Your task to perform on an android device: add a label to a message in the gmail app Image 0: 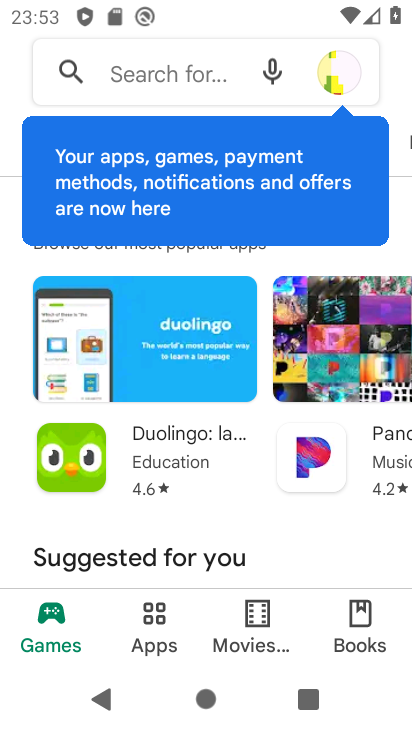
Step 0: press home button
Your task to perform on an android device: add a label to a message in the gmail app Image 1: 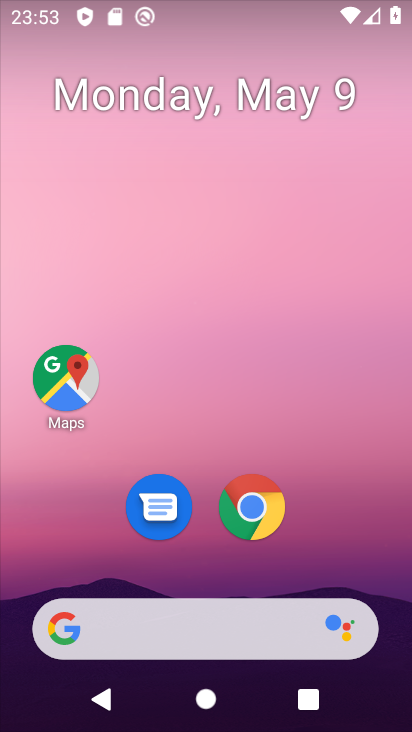
Step 1: drag from (325, 549) to (294, 131)
Your task to perform on an android device: add a label to a message in the gmail app Image 2: 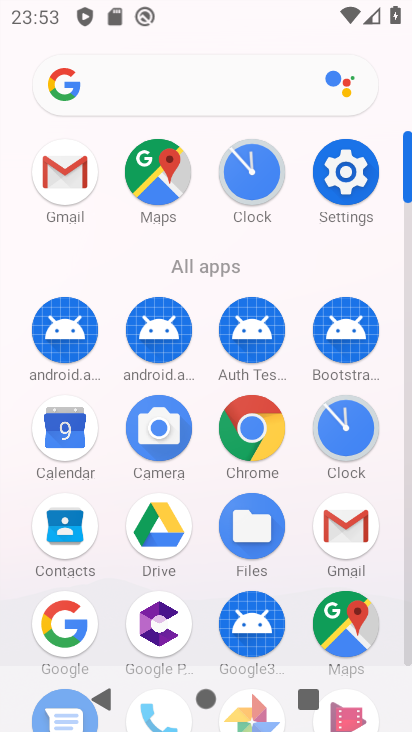
Step 2: click (339, 515)
Your task to perform on an android device: add a label to a message in the gmail app Image 3: 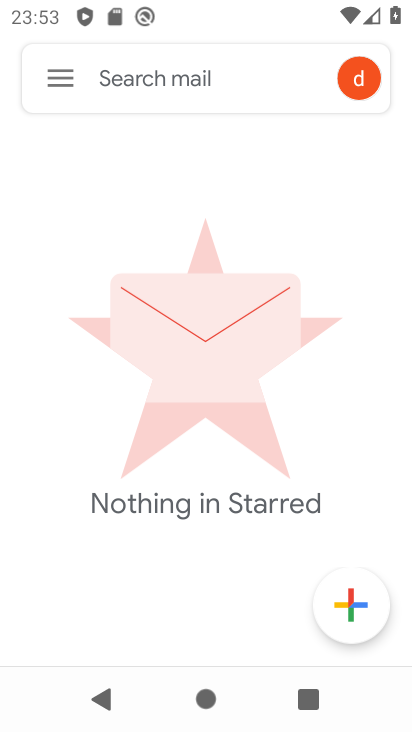
Step 3: click (70, 91)
Your task to perform on an android device: add a label to a message in the gmail app Image 4: 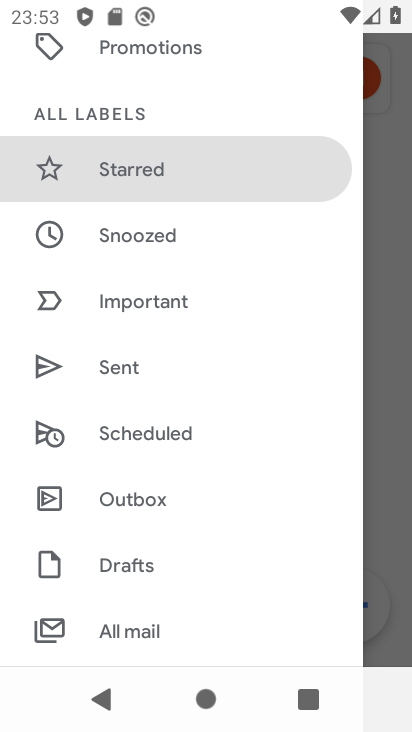
Step 4: click (130, 620)
Your task to perform on an android device: add a label to a message in the gmail app Image 5: 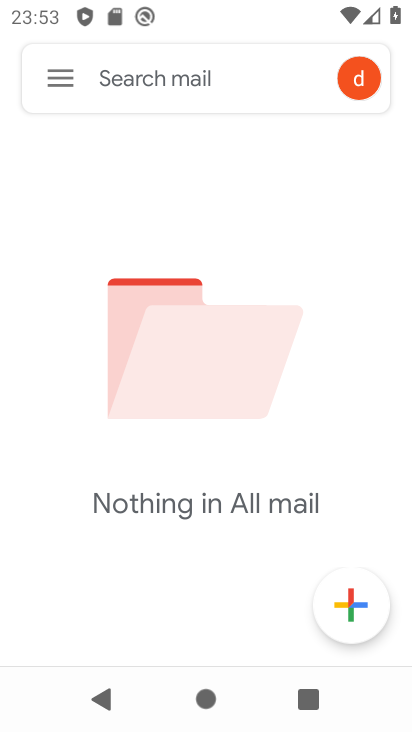
Step 5: task complete